Your task to perform on an android device: Go to wifi settings Image 0: 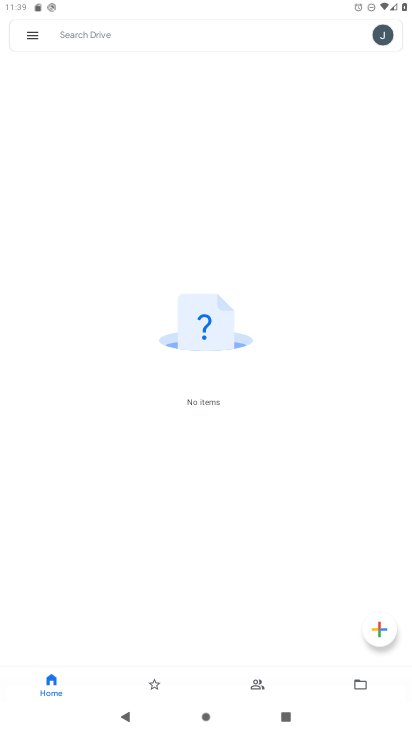
Step 0: press home button
Your task to perform on an android device: Go to wifi settings Image 1: 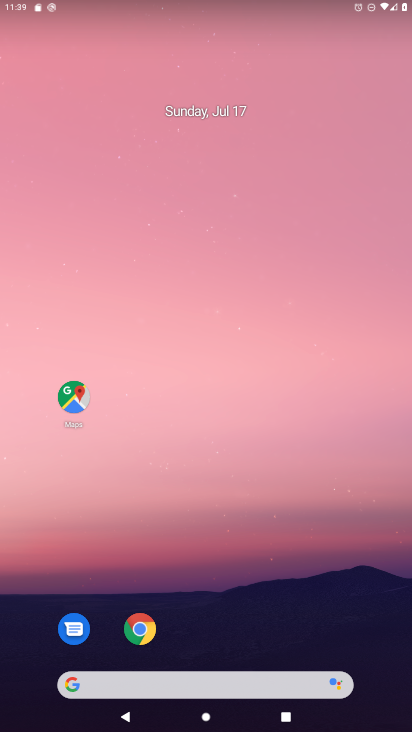
Step 1: drag from (205, 681) to (257, 81)
Your task to perform on an android device: Go to wifi settings Image 2: 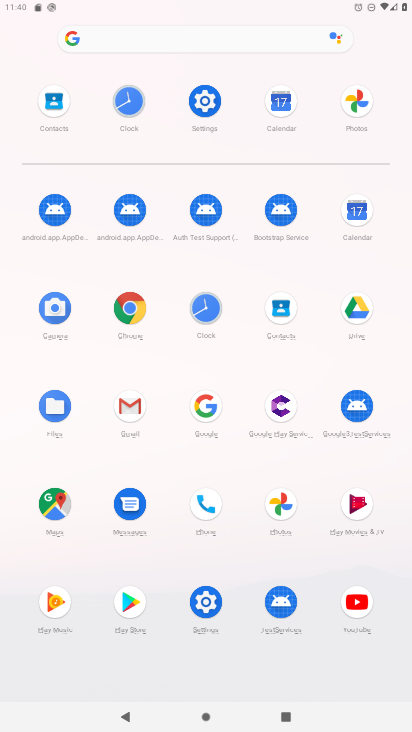
Step 2: click (204, 100)
Your task to perform on an android device: Go to wifi settings Image 3: 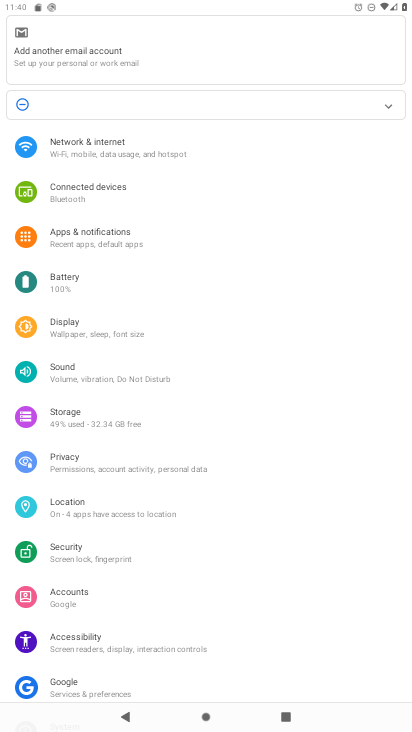
Step 3: click (139, 155)
Your task to perform on an android device: Go to wifi settings Image 4: 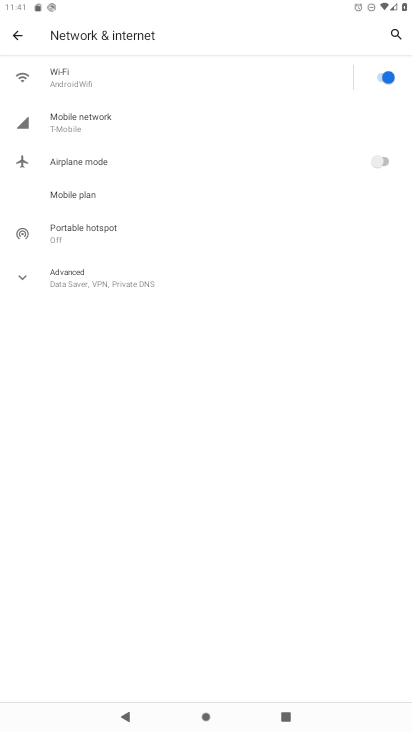
Step 4: click (77, 83)
Your task to perform on an android device: Go to wifi settings Image 5: 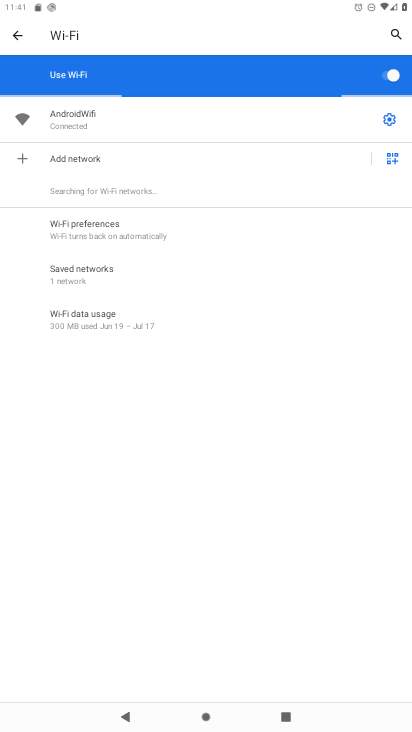
Step 5: click (389, 119)
Your task to perform on an android device: Go to wifi settings Image 6: 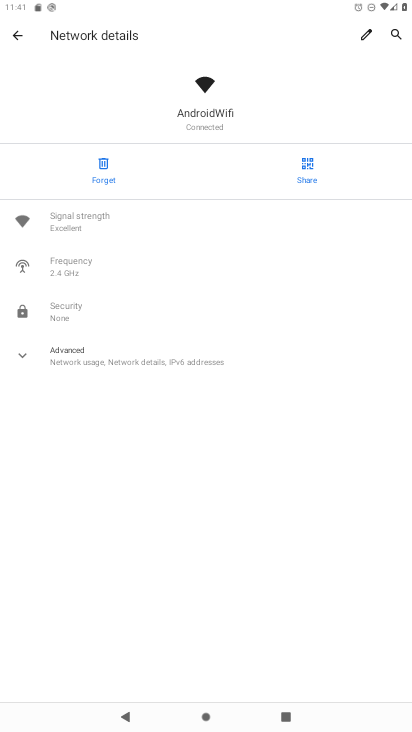
Step 6: task complete